Your task to perform on an android device: allow cookies in the chrome app Image 0: 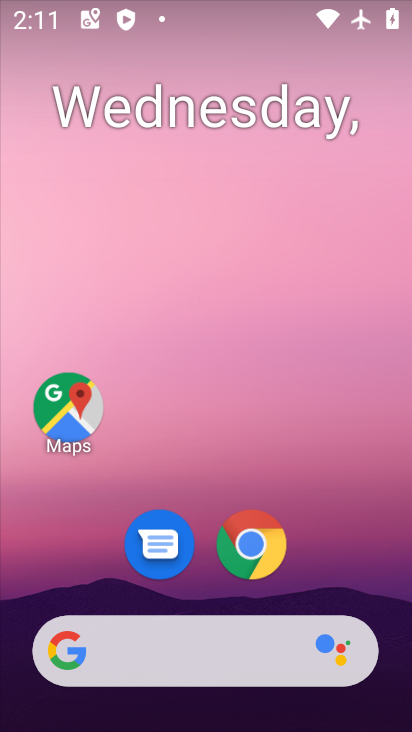
Step 0: click (256, 563)
Your task to perform on an android device: allow cookies in the chrome app Image 1: 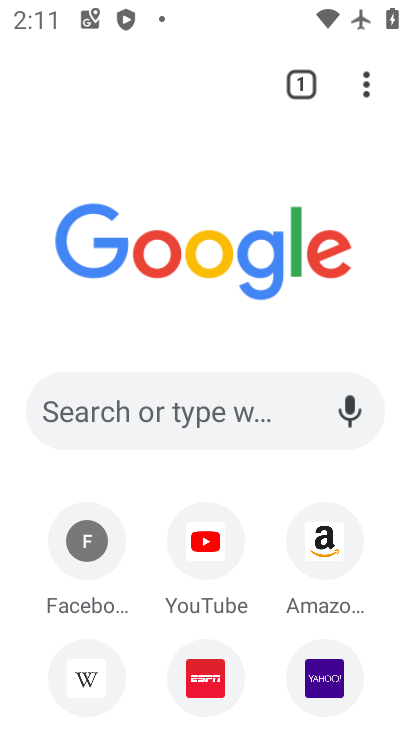
Step 1: click (372, 76)
Your task to perform on an android device: allow cookies in the chrome app Image 2: 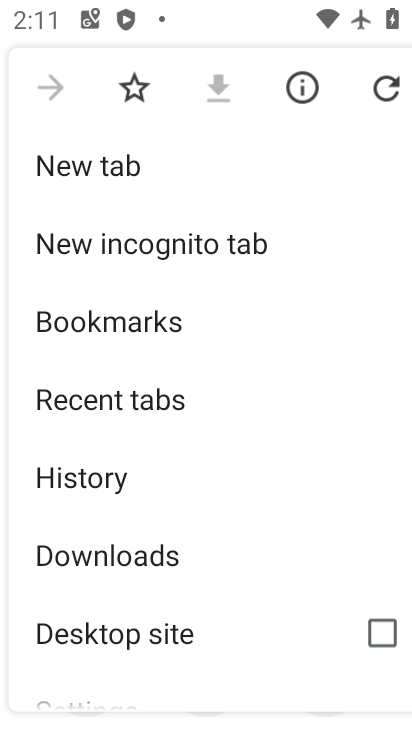
Step 2: drag from (141, 533) to (171, 271)
Your task to perform on an android device: allow cookies in the chrome app Image 3: 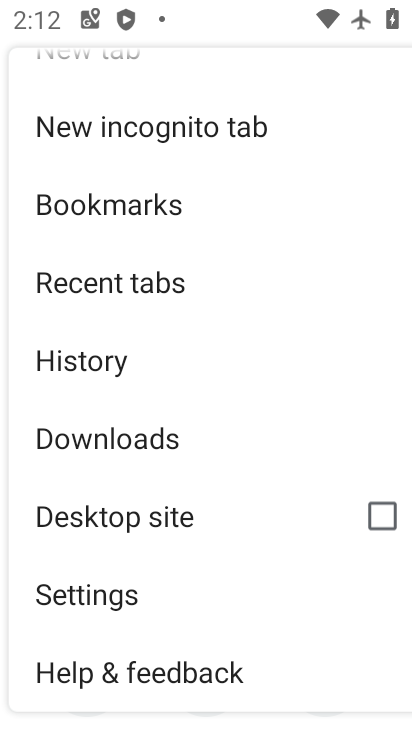
Step 3: click (143, 575)
Your task to perform on an android device: allow cookies in the chrome app Image 4: 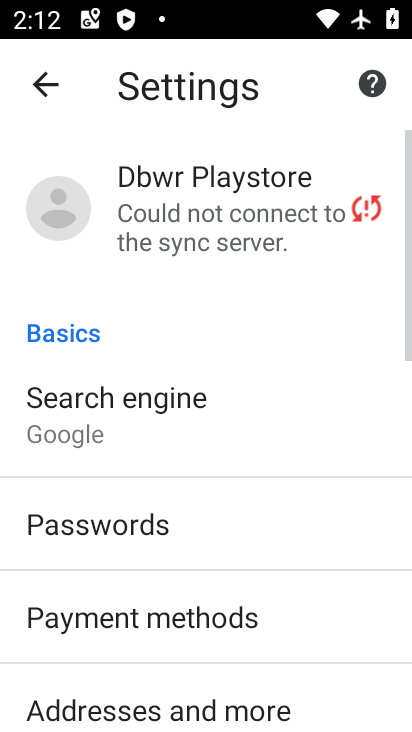
Step 4: drag from (165, 528) to (243, 218)
Your task to perform on an android device: allow cookies in the chrome app Image 5: 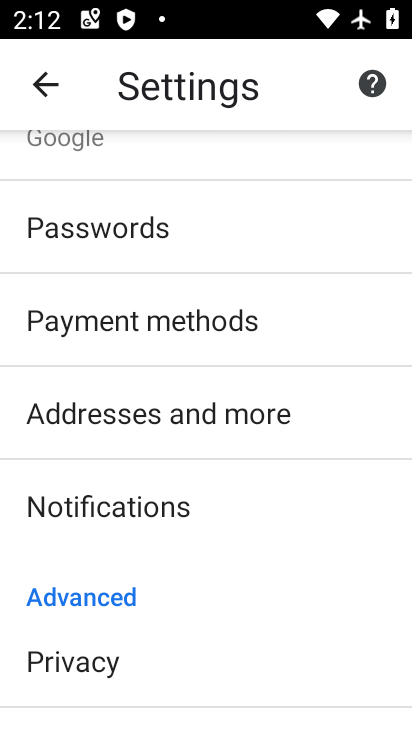
Step 5: drag from (134, 672) to (177, 463)
Your task to perform on an android device: allow cookies in the chrome app Image 6: 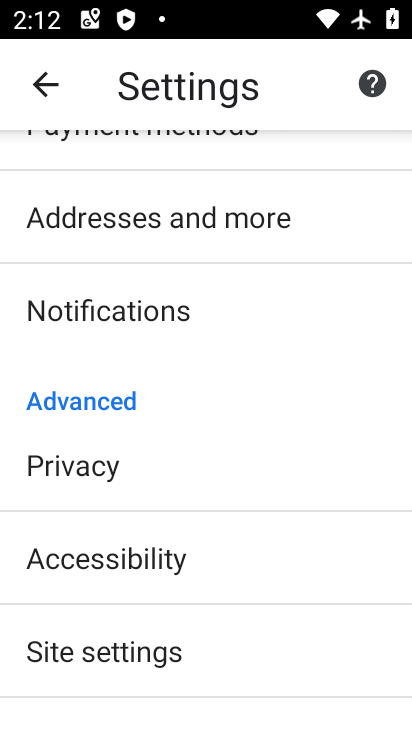
Step 6: click (115, 656)
Your task to perform on an android device: allow cookies in the chrome app Image 7: 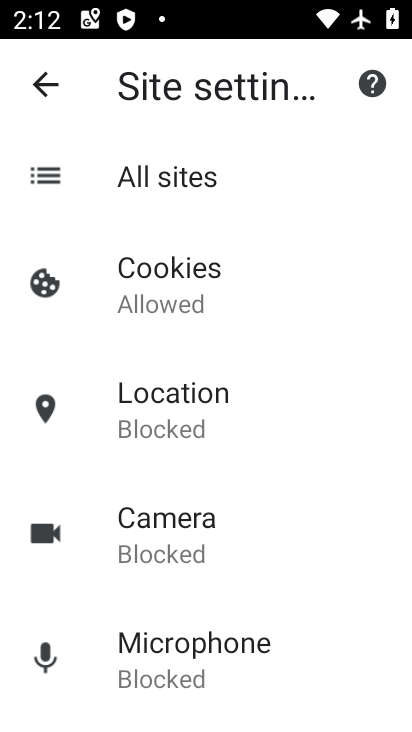
Step 7: task complete